Your task to perform on an android device: Go to notification settings Image 0: 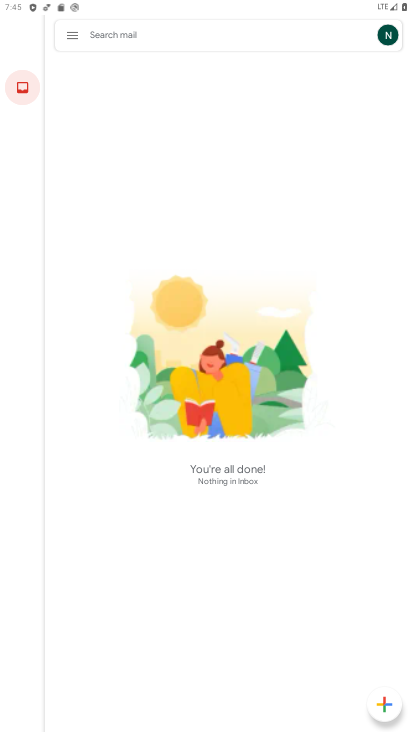
Step 0: press home button
Your task to perform on an android device: Go to notification settings Image 1: 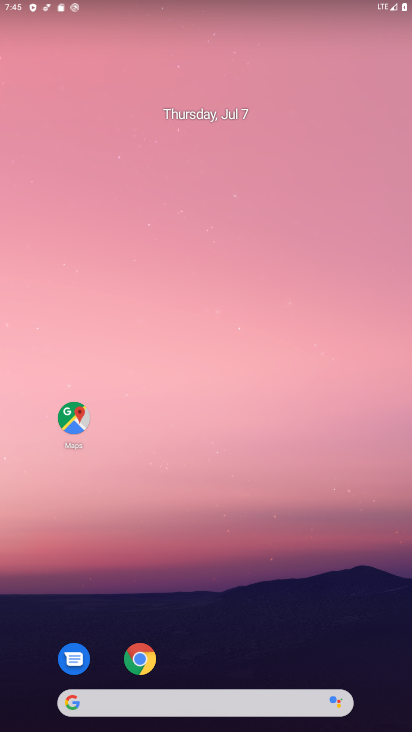
Step 1: drag from (137, 691) to (123, 353)
Your task to perform on an android device: Go to notification settings Image 2: 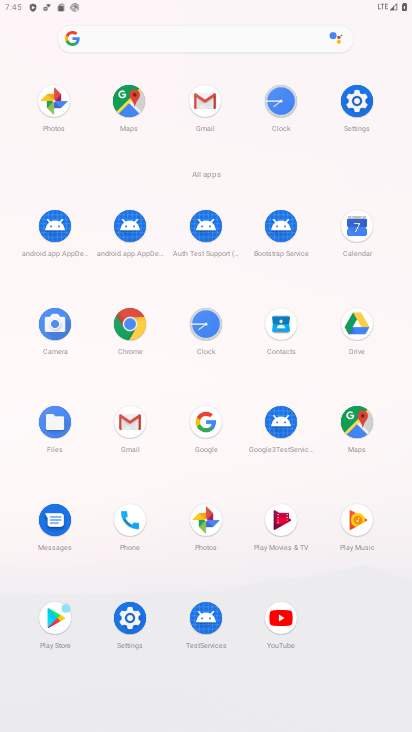
Step 2: click (355, 108)
Your task to perform on an android device: Go to notification settings Image 3: 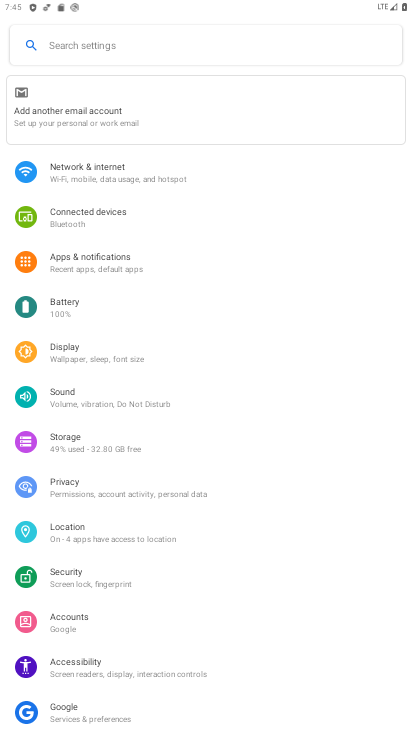
Step 3: click (73, 263)
Your task to perform on an android device: Go to notification settings Image 4: 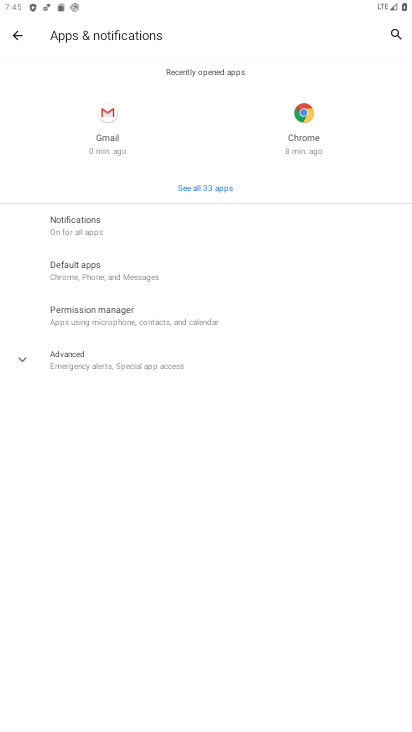
Step 4: click (79, 366)
Your task to perform on an android device: Go to notification settings Image 5: 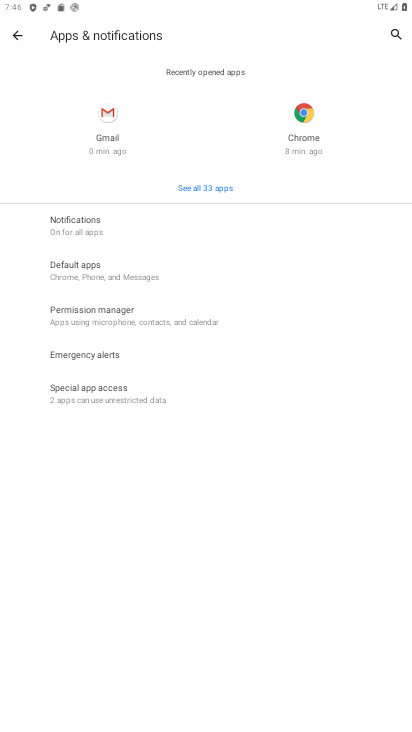
Step 5: task complete